Your task to perform on an android device: toggle notifications settings in the gmail app Image 0: 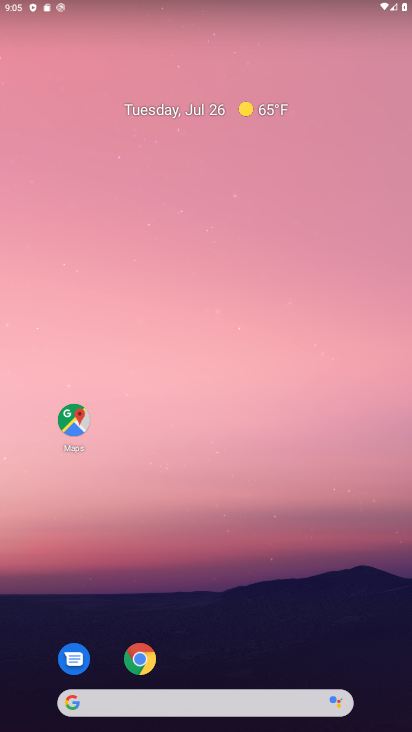
Step 0: drag from (182, 541) to (233, 139)
Your task to perform on an android device: toggle notifications settings in the gmail app Image 1: 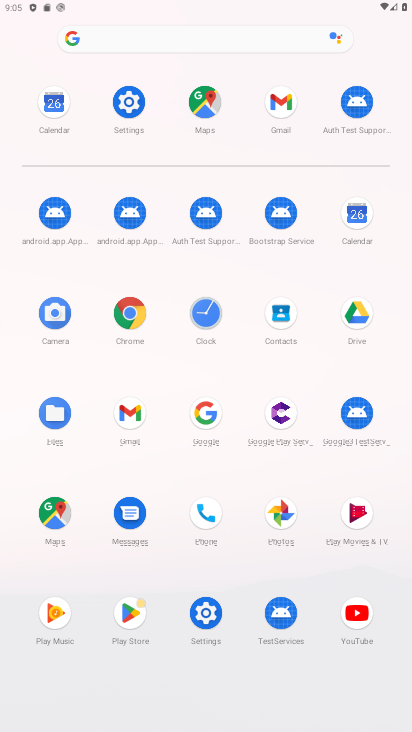
Step 1: click (284, 120)
Your task to perform on an android device: toggle notifications settings in the gmail app Image 2: 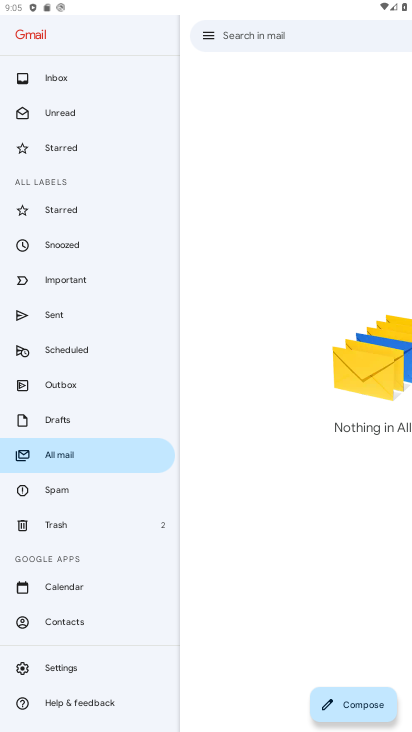
Step 2: click (49, 675)
Your task to perform on an android device: toggle notifications settings in the gmail app Image 3: 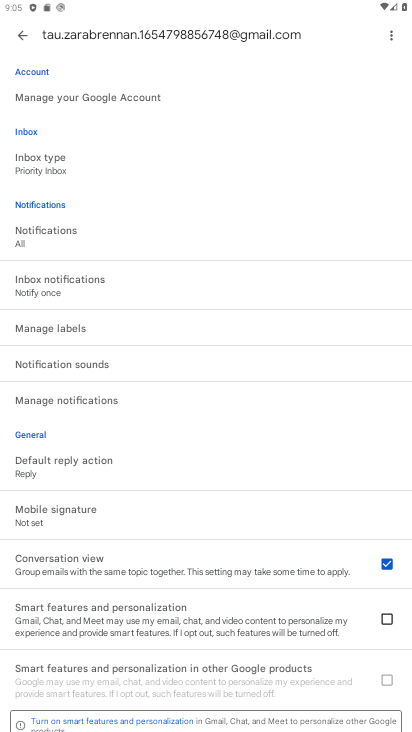
Step 3: click (24, 398)
Your task to perform on an android device: toggle notifications settings in the gmail app Image 4: 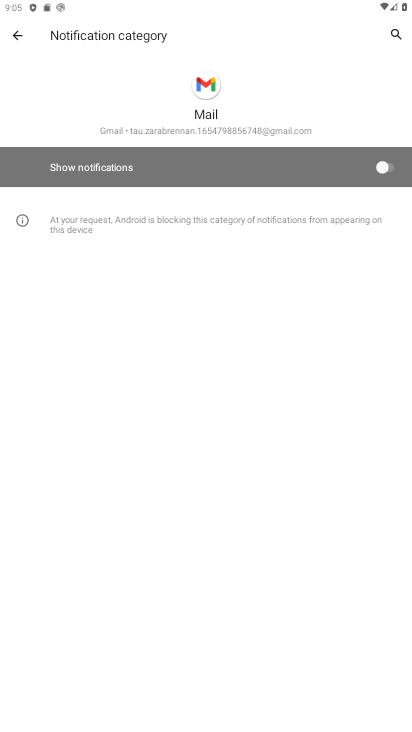
Step 4: click (382, 166)
Your task to perform on an android device: toggle notifications settings in the gmail app Image 5: 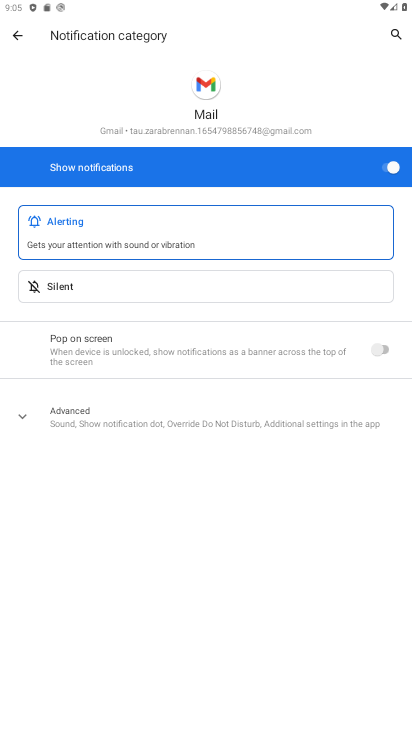
Step 5: task complete